Your task to perform on an android device: Open calendar and show me the third week of next month Image 0: 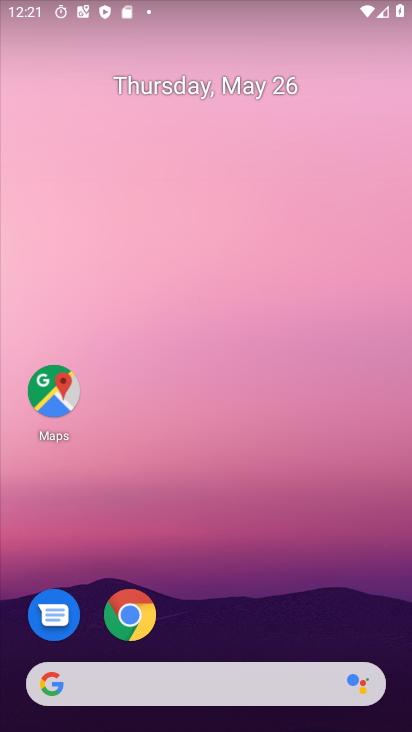
Step 0: drag from (244, 639) to (204, 183)
Your task to perform on an android device: Open calendar and show me the third week of next month Image 1: 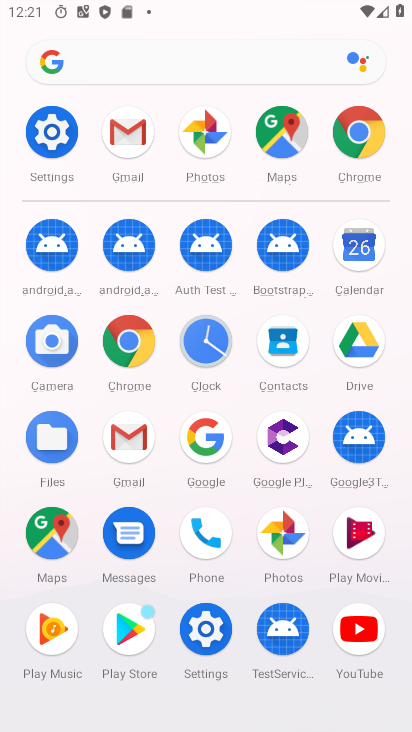
Step 1: click (358, 260)
Your task to perform on an android device: Open calendar and show me the third week of next month Image 2: 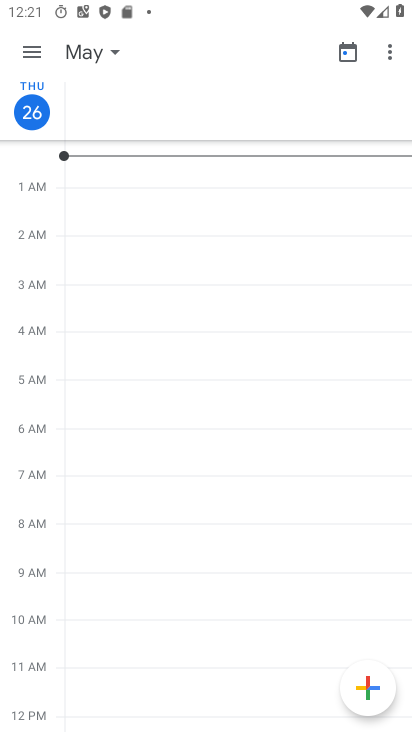
Step 2: click (33, 47)
Your task to perform on an android device: Open calendar and show me the third week of next month Image 3: 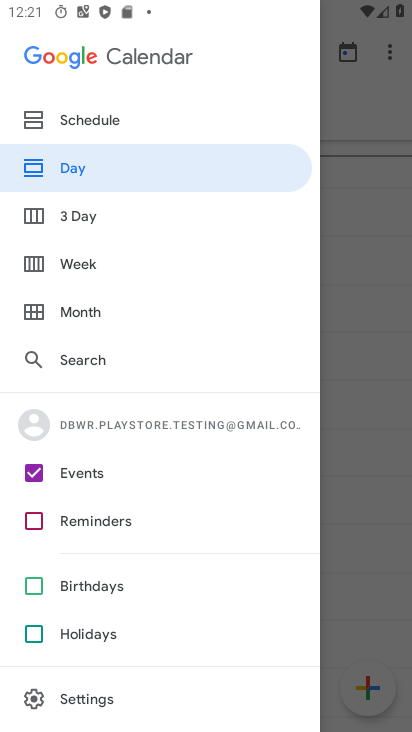
Step 3: click (107, 271)
Your task to perform on an android device: Open calendar and show me the third week of next month Image 4: 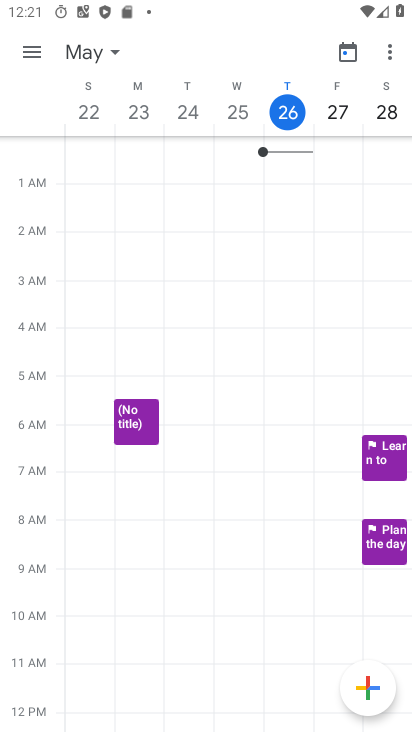
Step 4: click (105, 51)
Your task to perform on an android device: Open calendar and show me the third week of next month Image 5: 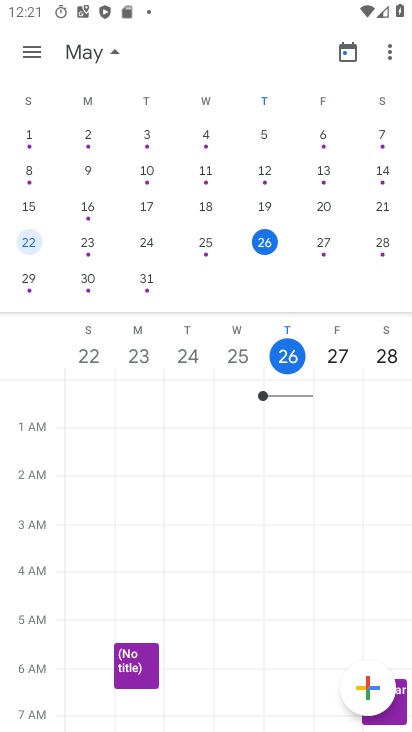
Step 5: drag from (379, 211) to (21, 194)
Your task to perform on an android device: Open calendar and show me the third week of next month Image 6: 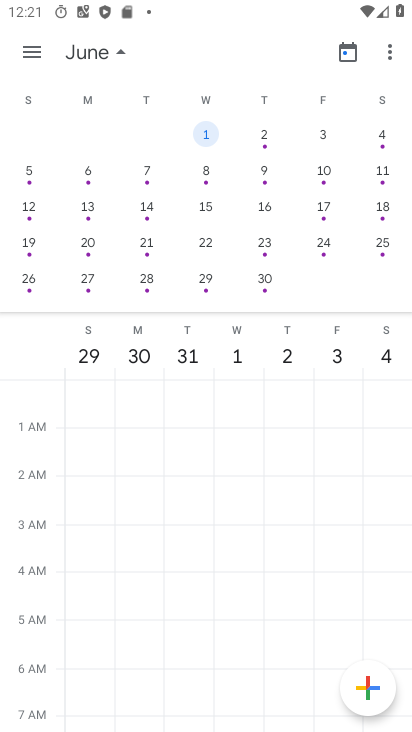
Step 6: click (205, 216)
Your task to perform on an android device: Open calendar and show me the third week of next month Image 7: 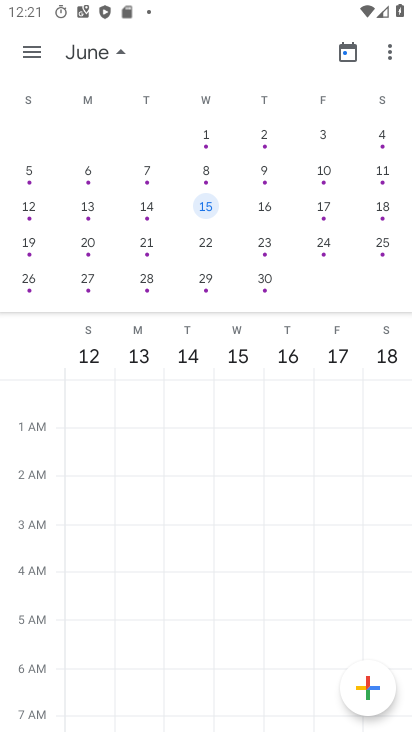
Step 7: task complete